Your task to perform on an android device: Open the stopwatch Image 0: 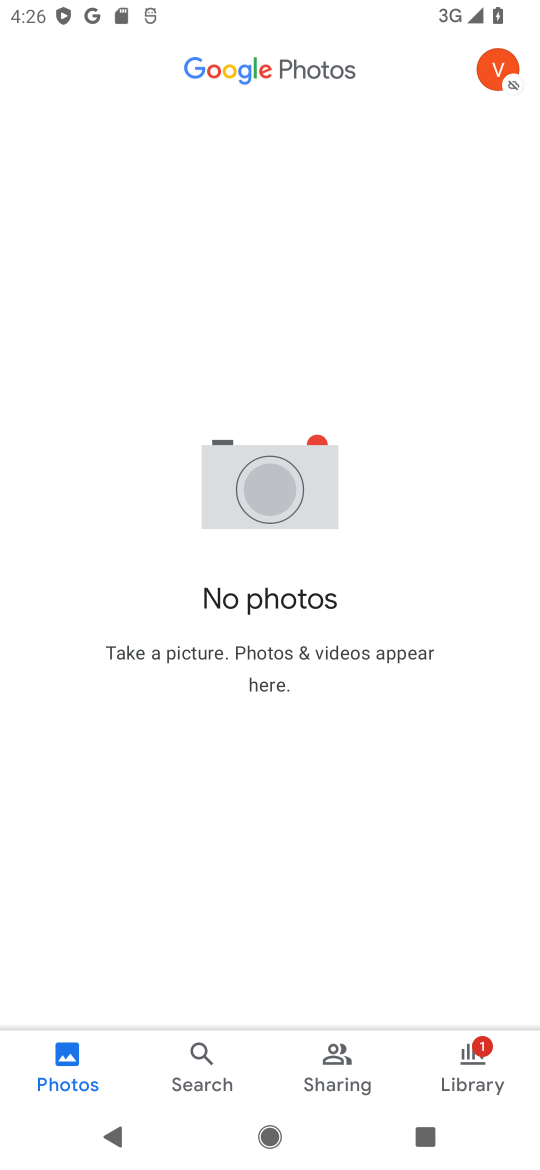
Step 0: press back button
Your task to perform on an android device: Open the stopwatch Image 1: 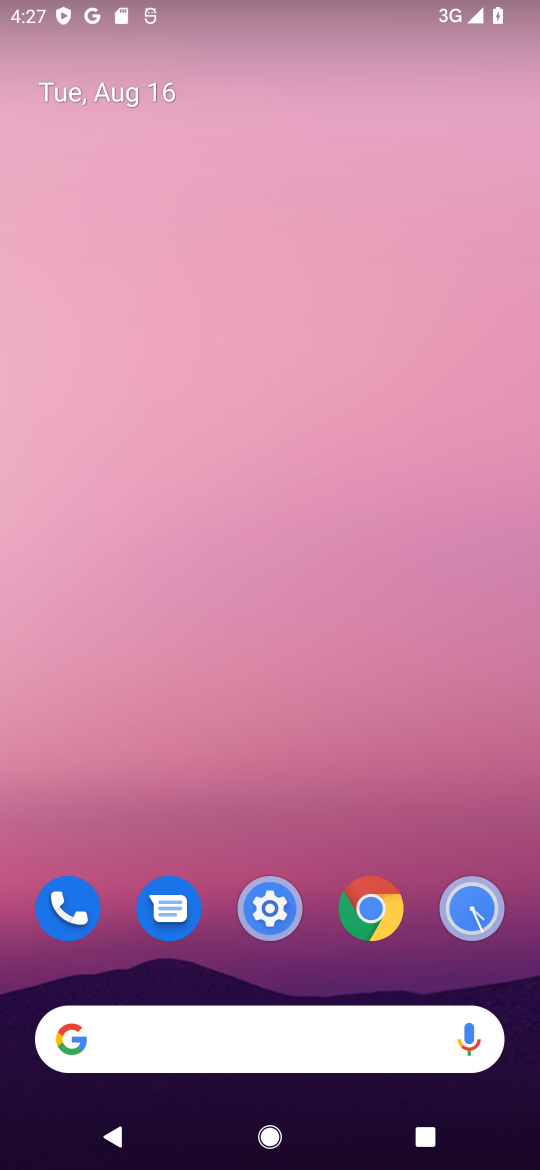
Step 1: click (481, 894)
Your task to perform on an android device: Open the stopwatch Image 2: 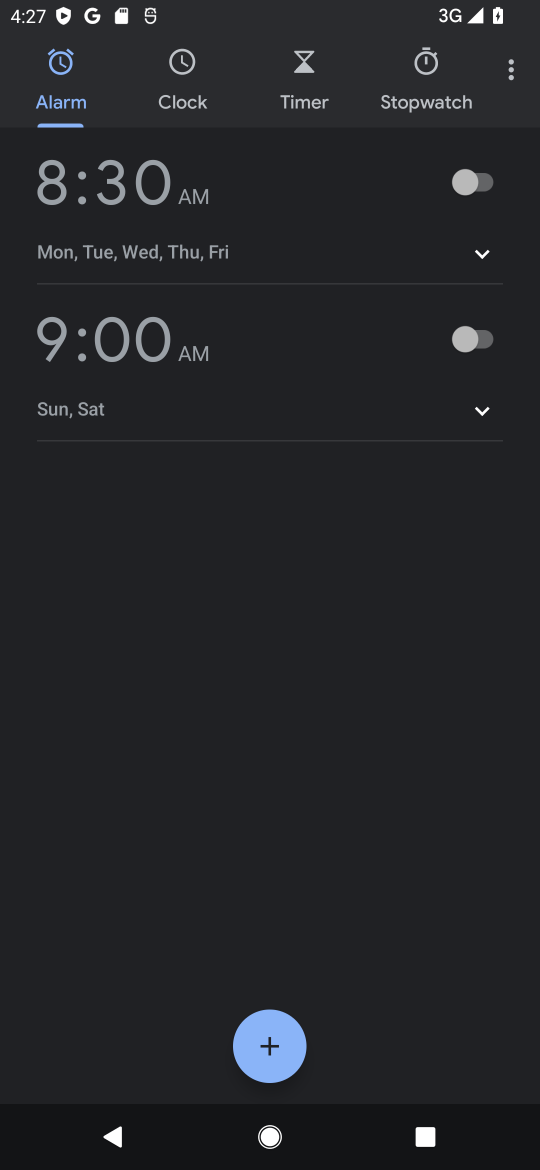
Step 2: click (430, 81)
Your task to perform on an android device: Open the stopwatch Image 3: 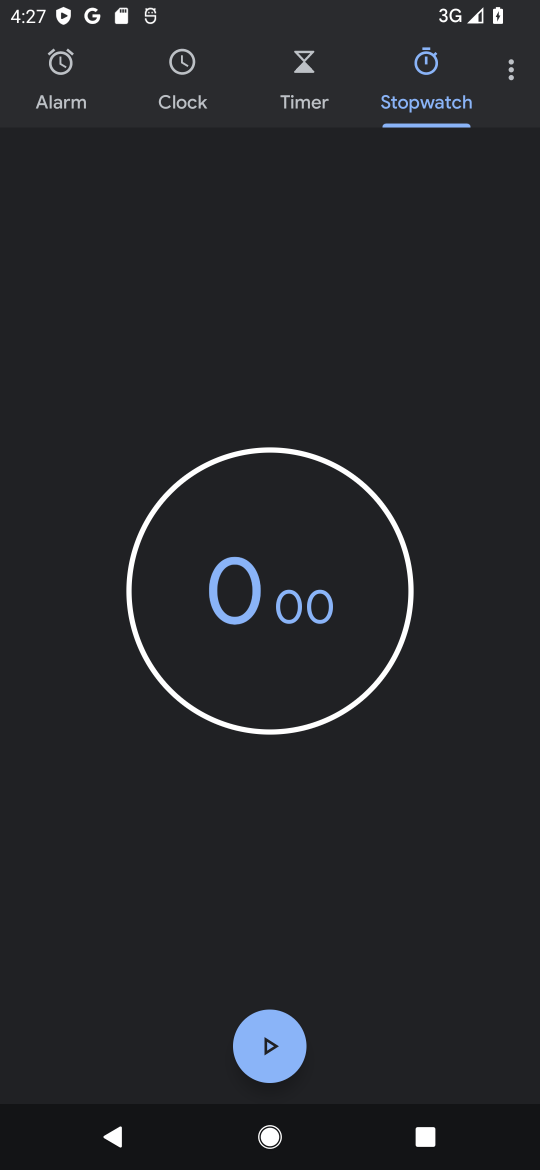
Step 3: task complete